Your task to perform on an android device: Go to location settings Image 0: 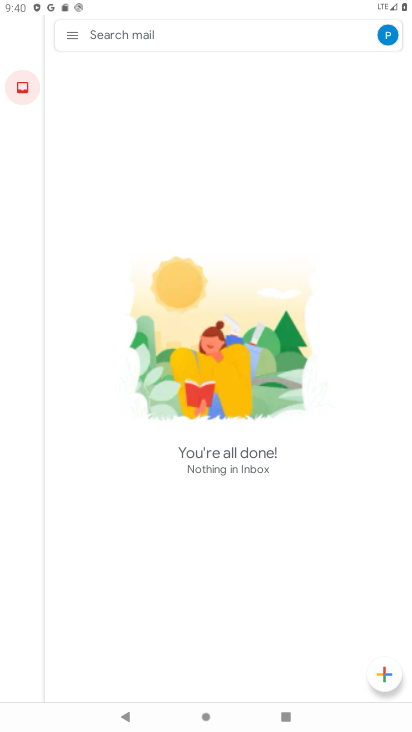
Step 0: press home button
Your task to perform on an android device: Go to location settings Image 1: 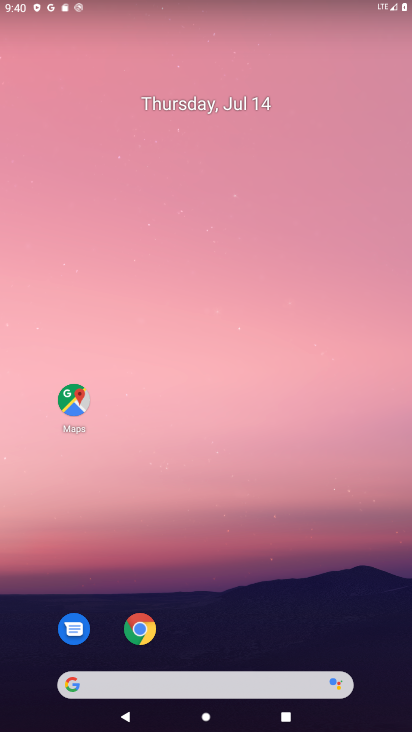
Step 1: drag from (16, 690) to (302, 166)
Your task to perform on an android device: Go to location settings Image 2: 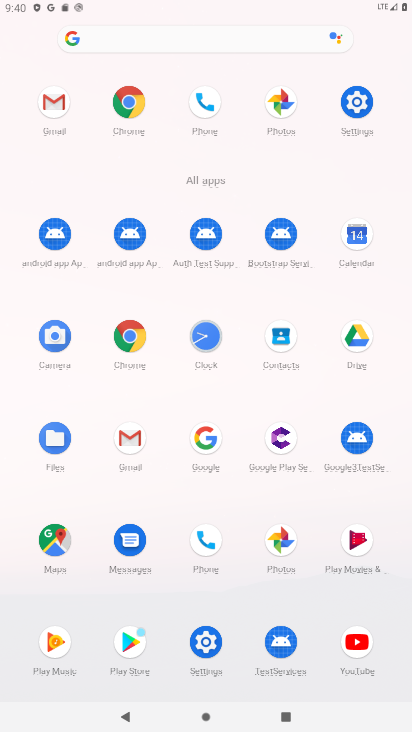
Step 2: click (343, 110)
Your task to perform on an android device: Go to location settings Image 3: 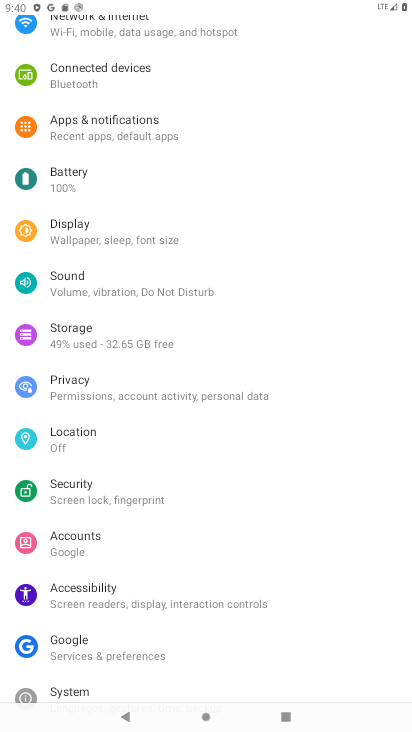
Step 3: click (80, 439)
Your task to perform on an android device: Go to location settings Image 4: 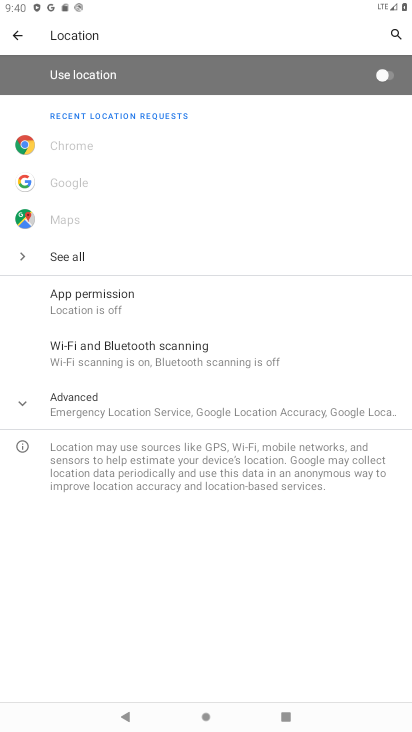
Step 4: task complete